Your task to perform on an android device: Go to Yahoo.com Image 0: 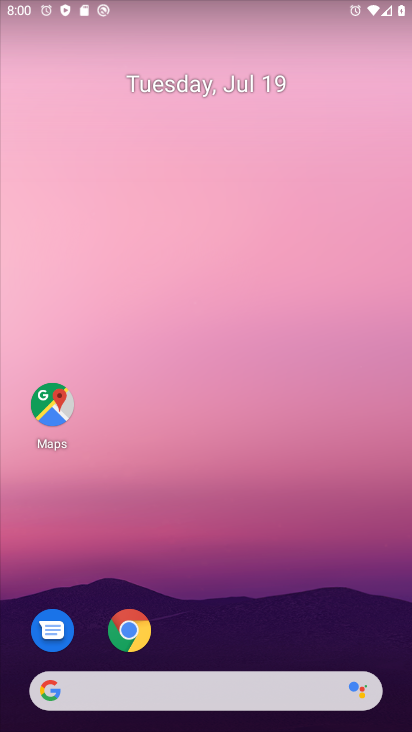
Step 0: drag from (278, 513) to (290, 116)
Your task to perform on an android device: Go to Yahoo.com Image 1: 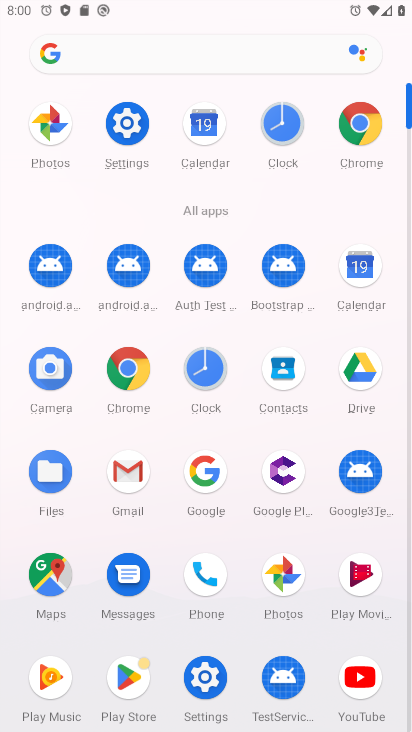
Step 1: click (220, 46)
Your task to perform on an android device: Go to Yahoo.com Image 2: 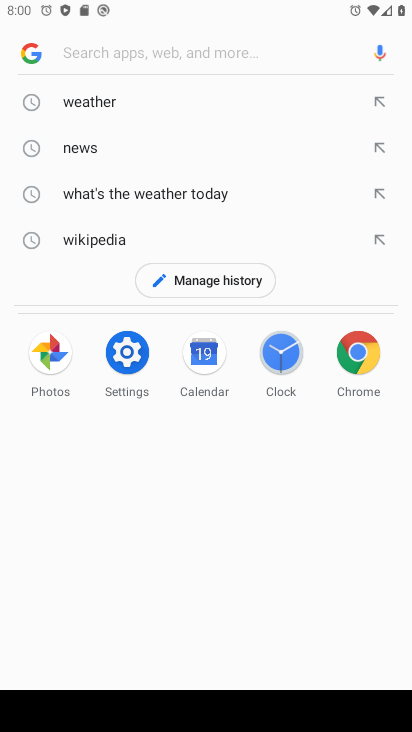
Step 2: type "Yahoo.com"
Your task to perform on an android device: Go to Yahoo.com Image 3: 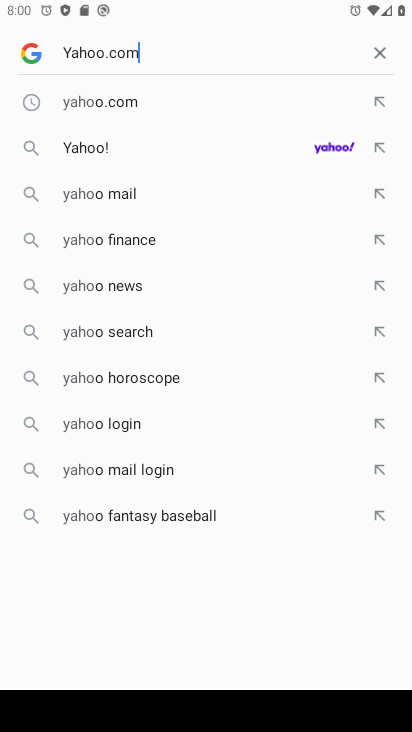
Step 3: press enter
Your task to perform on an android device: Go to Yahoo.com Image 4: 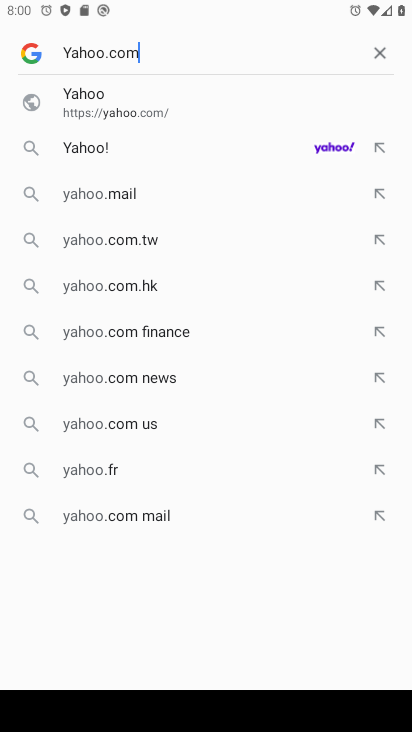
Step 4: type ""
Your task to perform on an android device: Go to Yahoo.com Image 5: 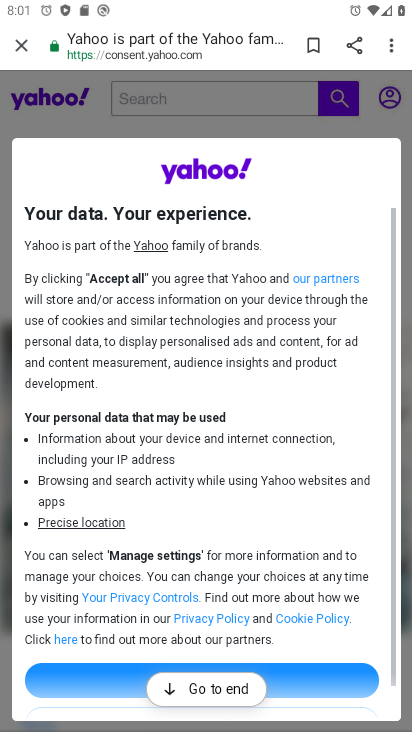
Step 5: task complete